Your task to perform on an android device: Go to privacy settings Image 0: 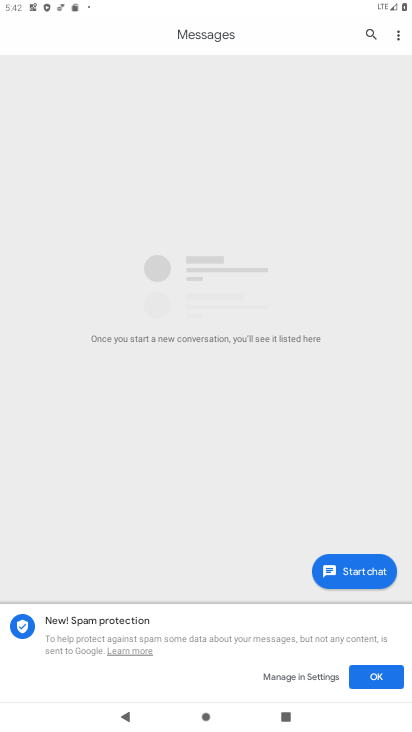
Step 0: press home button
Your task to perform on an android device: Go to privacy settings Image 1: 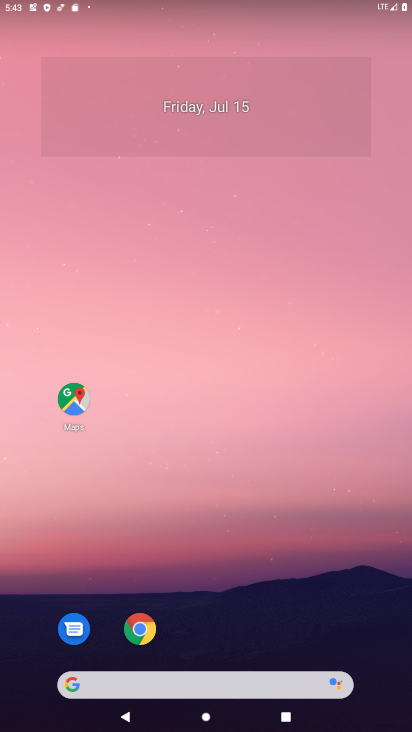
Step 1: drag from (214, 635) to (194, 154)
Your task to perform on an android device: Go to privacy settings Image 2: 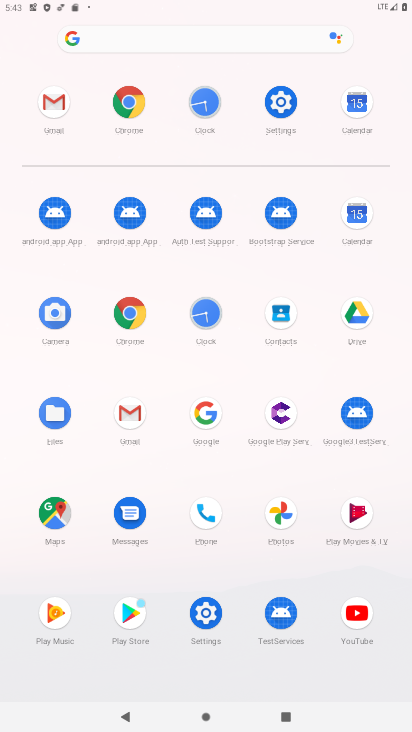
Step 2: click (285, 112)
Your task to perform on an android device: Go to privacy settings Image 3: 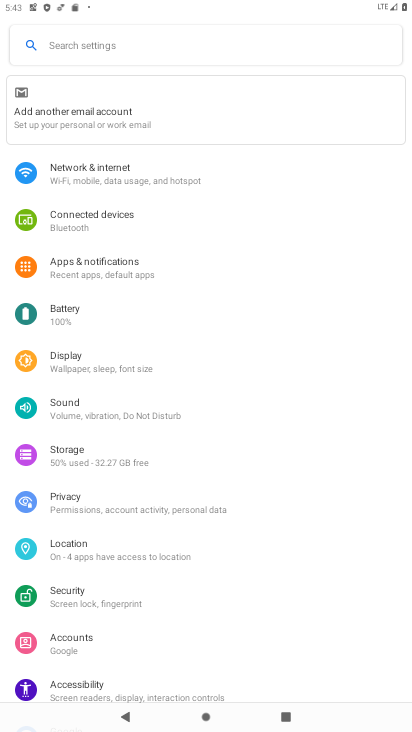
Step 3: click (70, 507)
Your task to perform on an android device: Go to privacy settings Image 4: 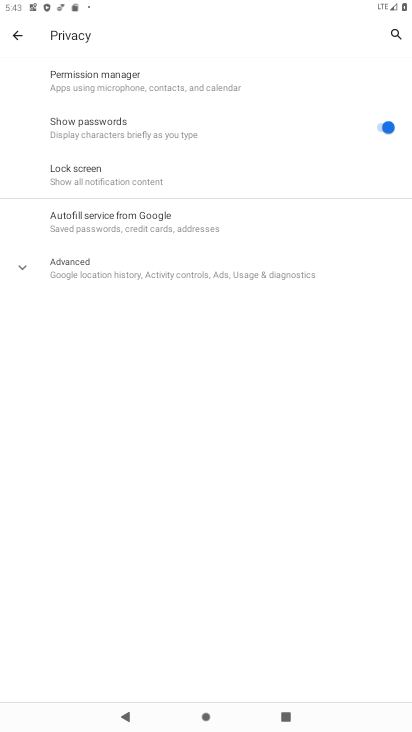
Step 4: task complete